Your task to perform on an android device: Open calendar and show me the fourth week of next month Image 0: 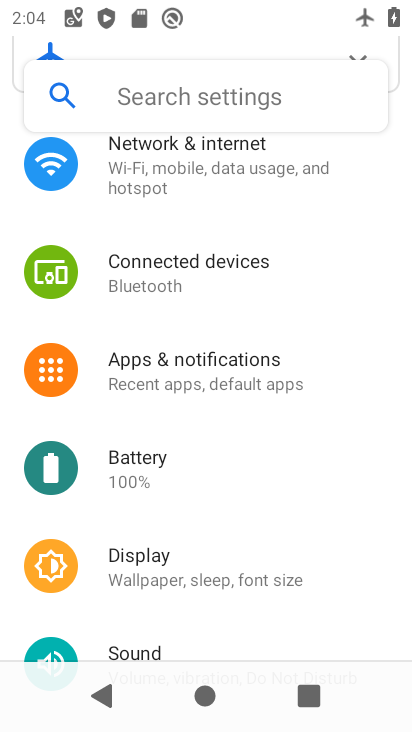
Step 0: press home button
Your task to perform on an android device: Open calendar and show me the fourth week of next month Image 1: 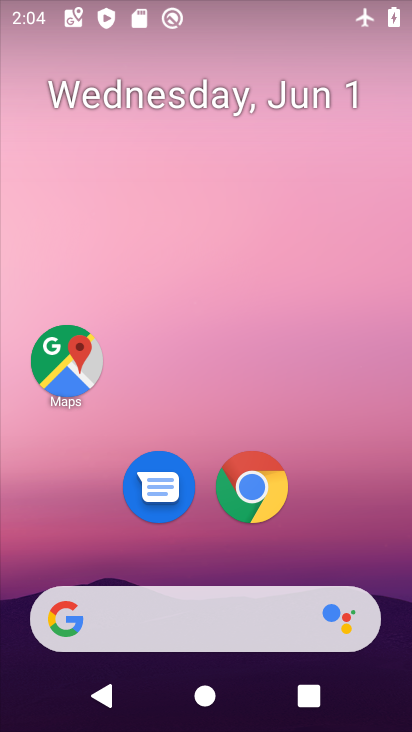
Step 1: drag from (353, 424) to (364, 151)
Your task to perform on an android device: Open calendar and show me the fourth week of next month Image 2: 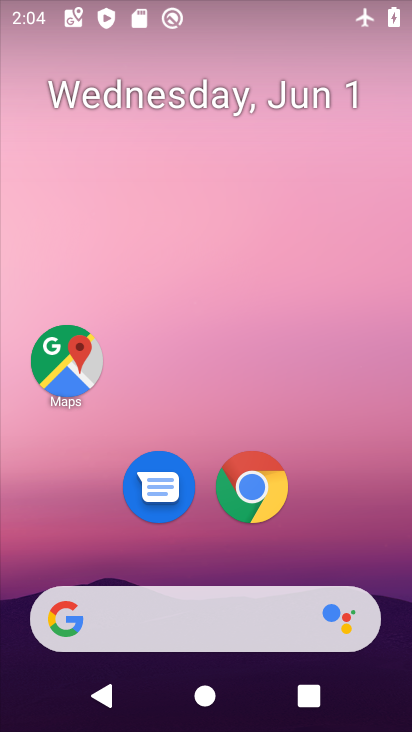
Step 2: drag from (355, 534) to (347, 99)
Your task to perform on an android device: Open calendar and show me the fourth week of next month Image 3: 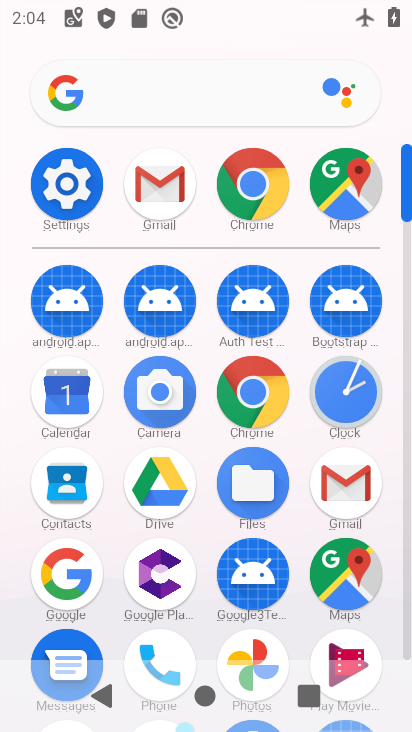
Step 3: click (74, 397)
Your task to perform on an android device: Open calendar and show me the fourth week of next month Image 4: 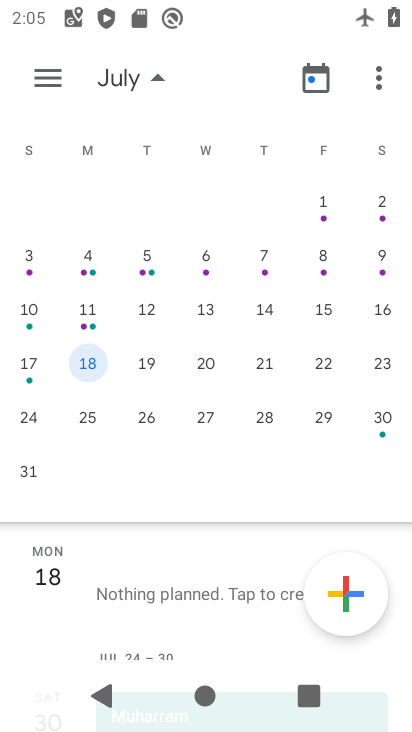
Step 4: task complete